Your task to perform on an android device: allow notifications from all sites in the chrome app Image 0: 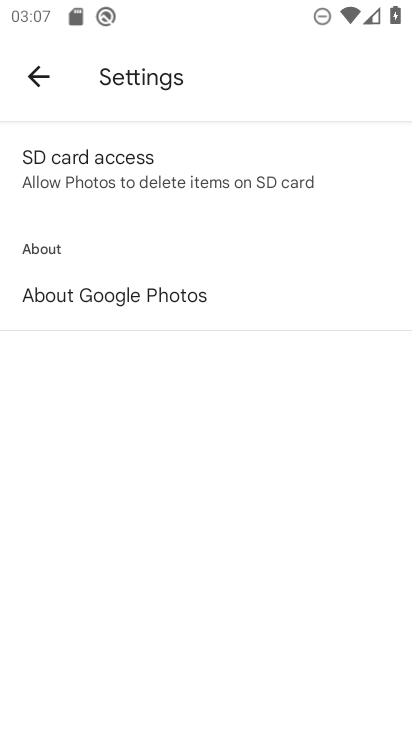
Step 0: press home button
Your task to perform on an android device: allow notifications from all sites in the chrome app Image 1: 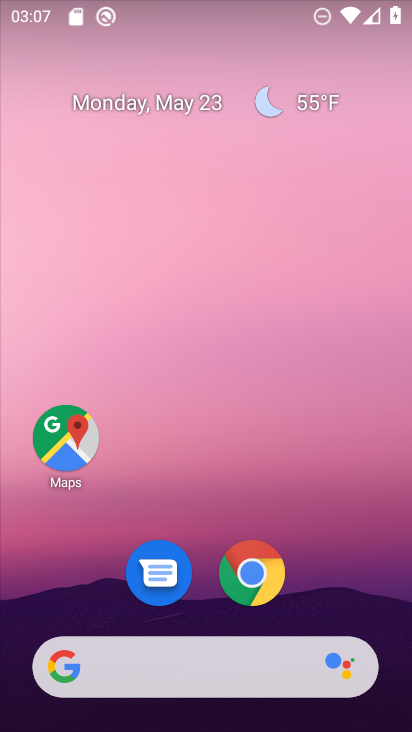
Step 1: click (241, 573)
Your task to perform on an android device: allow notifications from all sites in the chrome app Image 2: 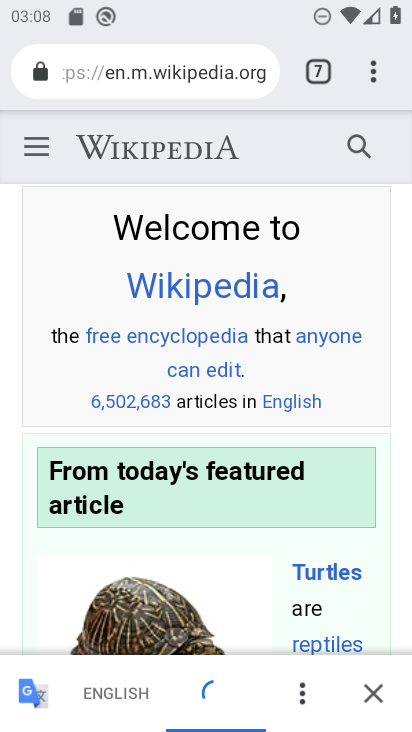
Step 2: click (373, 75)
Your task to perform on an android device: allow notifications from all sites in the chrome app Image 3: 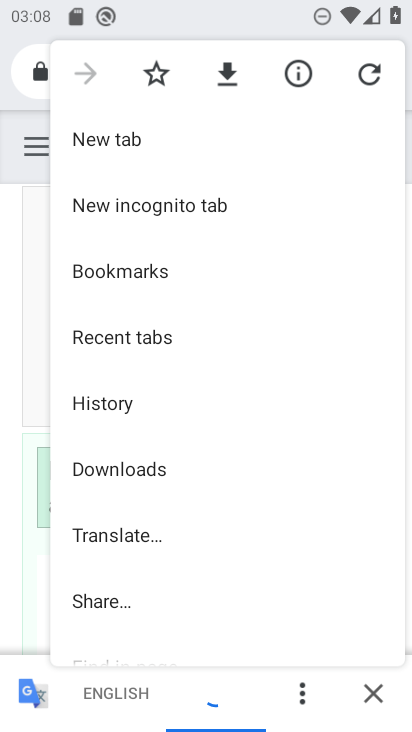
Step 3: drag from (165, 606) to (209, 128)
Your task to perform on an android device: allow notifications from all sites in the chrome app Image 4: 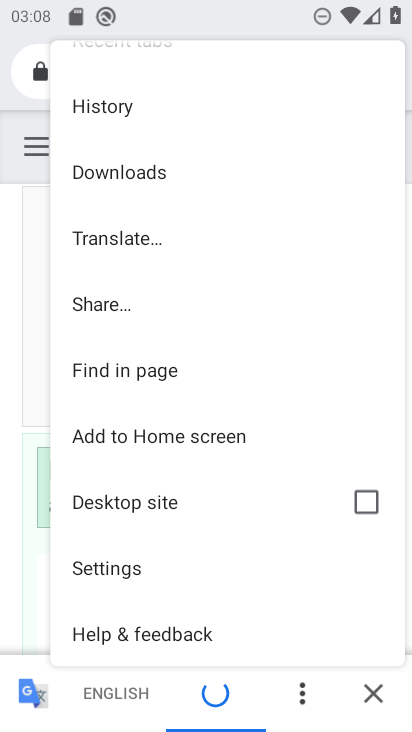
Step 4: click (112, 562)
Your task to perform on an android device: allow notifications from all sites in the chrome app Image 5: 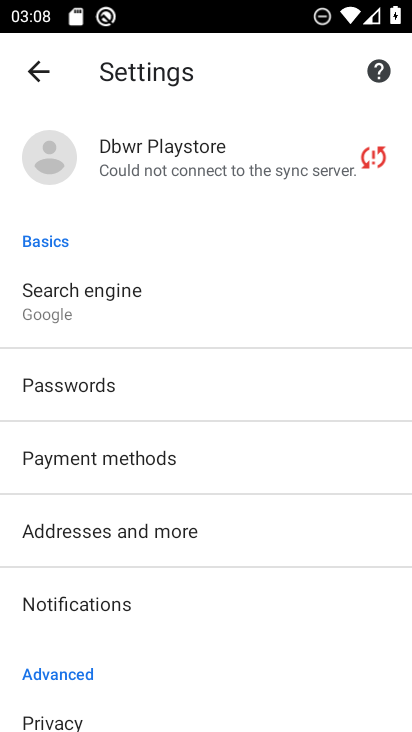
Step 5: click (69, 601)
Your task to perform on an android device: allow notifications from all sites in the chrome app Image 6: 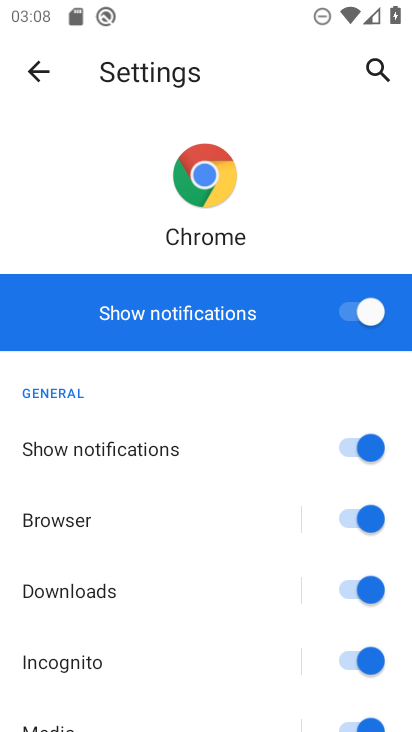
Step 6: task complete